Your task to perform on an android device: open chrome privacy settings Image 0: 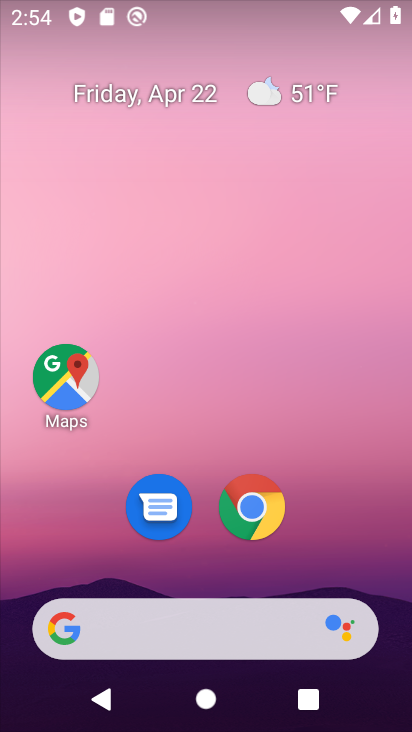
Step 0: click (255, 518)
Your task to perform on an android device: open chrome privacy settings Image 1: 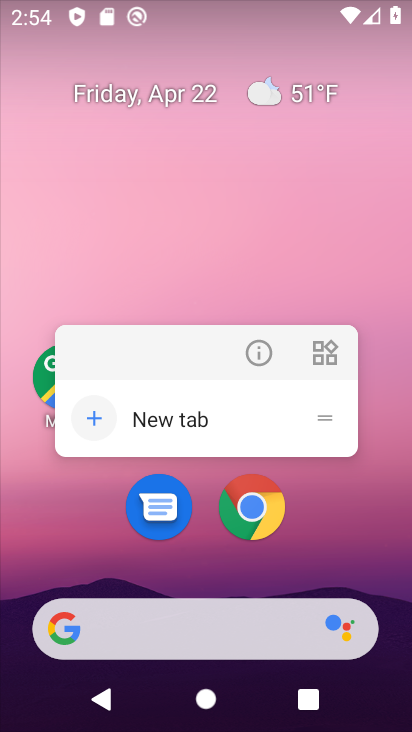
Step 1: click (254, 505)
Your task to perform on an android device: open chrome privacy settings Image 2: 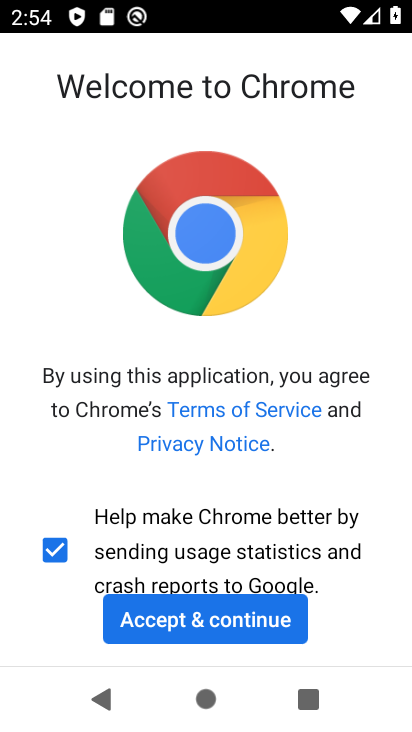
Step 2: click (231, 596)
Your task to perform on an android device: open chrome privacy settings Image 3: 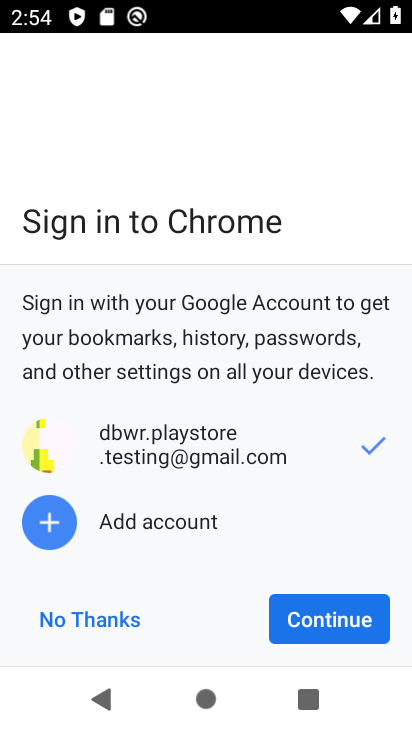
Step 3: click (341, 617)
Your task to perform on an android device: open chrome privacy settings Image 4: 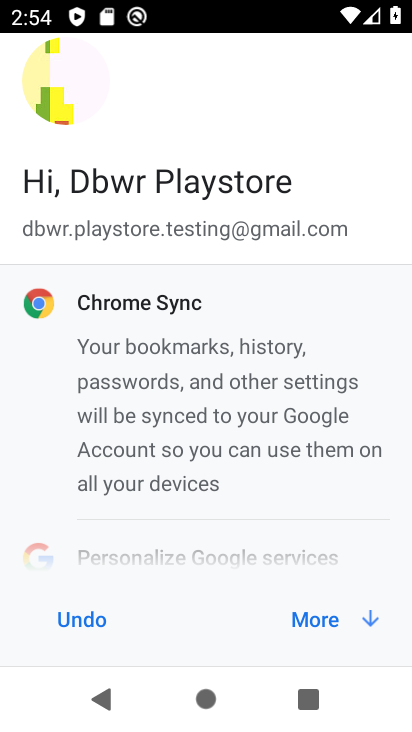
Step 4: click (327, 625)
Your task to perform on an android device: open chrome privacy settings Image 5: 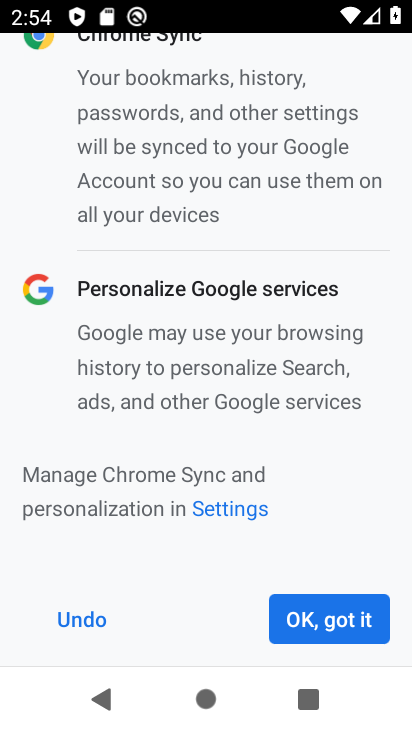
Step 5: click (324, 621)
Your task to perform on an android device: open chrome privacy settings Image 6: 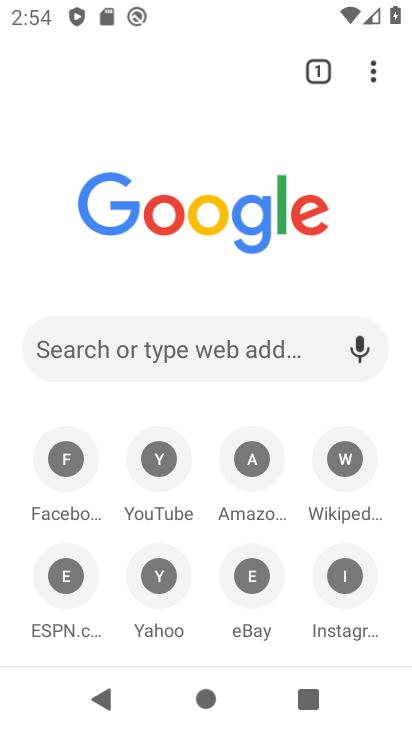
Step 6: click (369, 67)
Your task to perform on an android device: open chrome privacy settings Image 7: 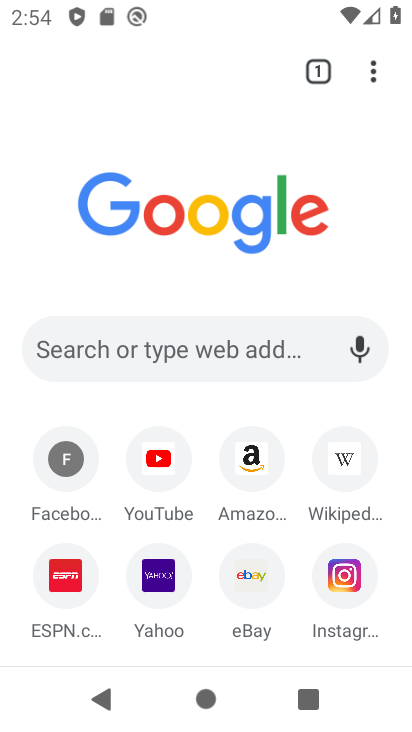
Step 7: click (373, 79)
Your task to perform on an android device: open chrome privacy settings Image 8: 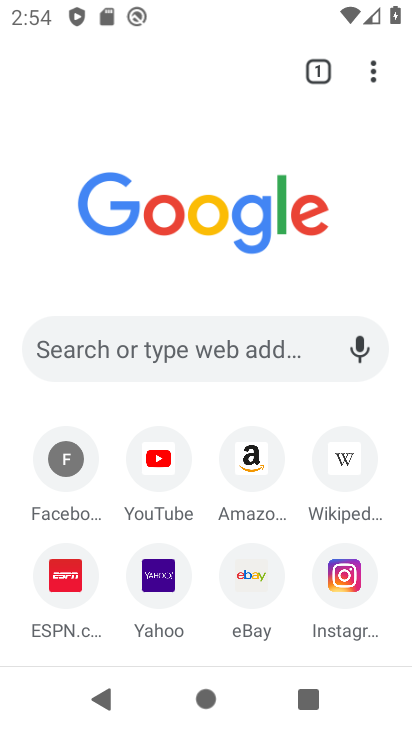
Step 8: drag from (367, 69) to (132, 516)
Your task to perform on an android device: open chrome privacy settings Image 9: 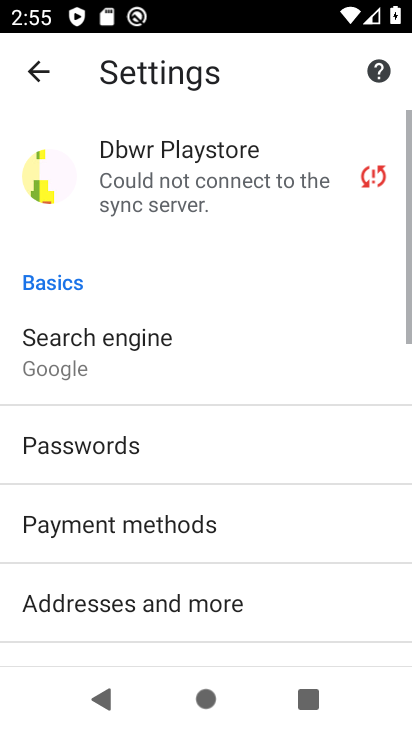
Step 9: drag from (170, 536) to (282, 31)
Your task to perform on an android device: open chrome privacy settings Image 10: 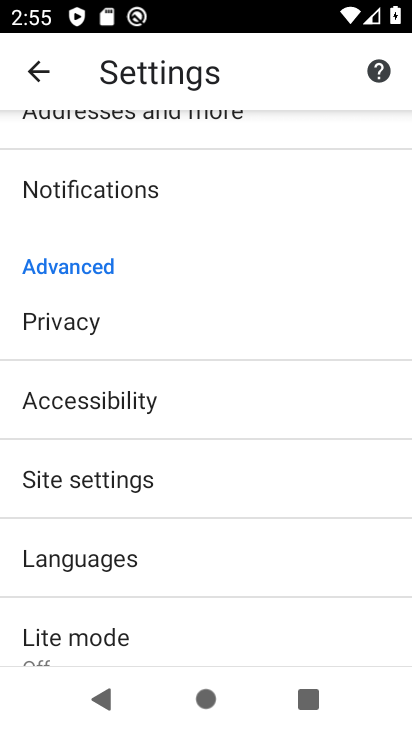
Step 10: click (63, 344)
Your task to perform on an android device: open chrome privacy settings Image 11: 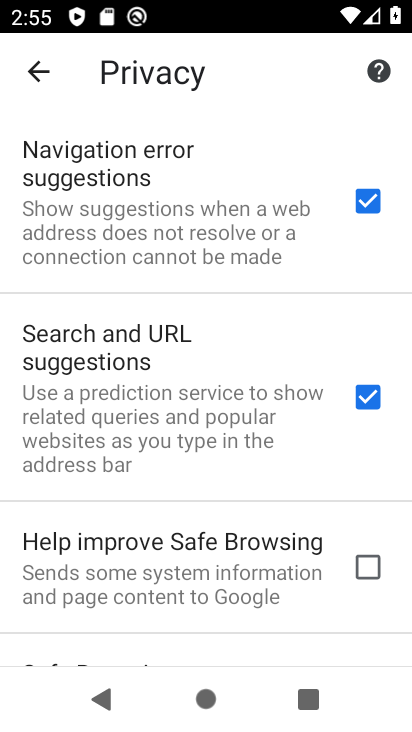
Step 11: task complete